Your task to perform on an android device: open app "Facebook Messenger" (install if not already installed) and go to login screen Image 0: 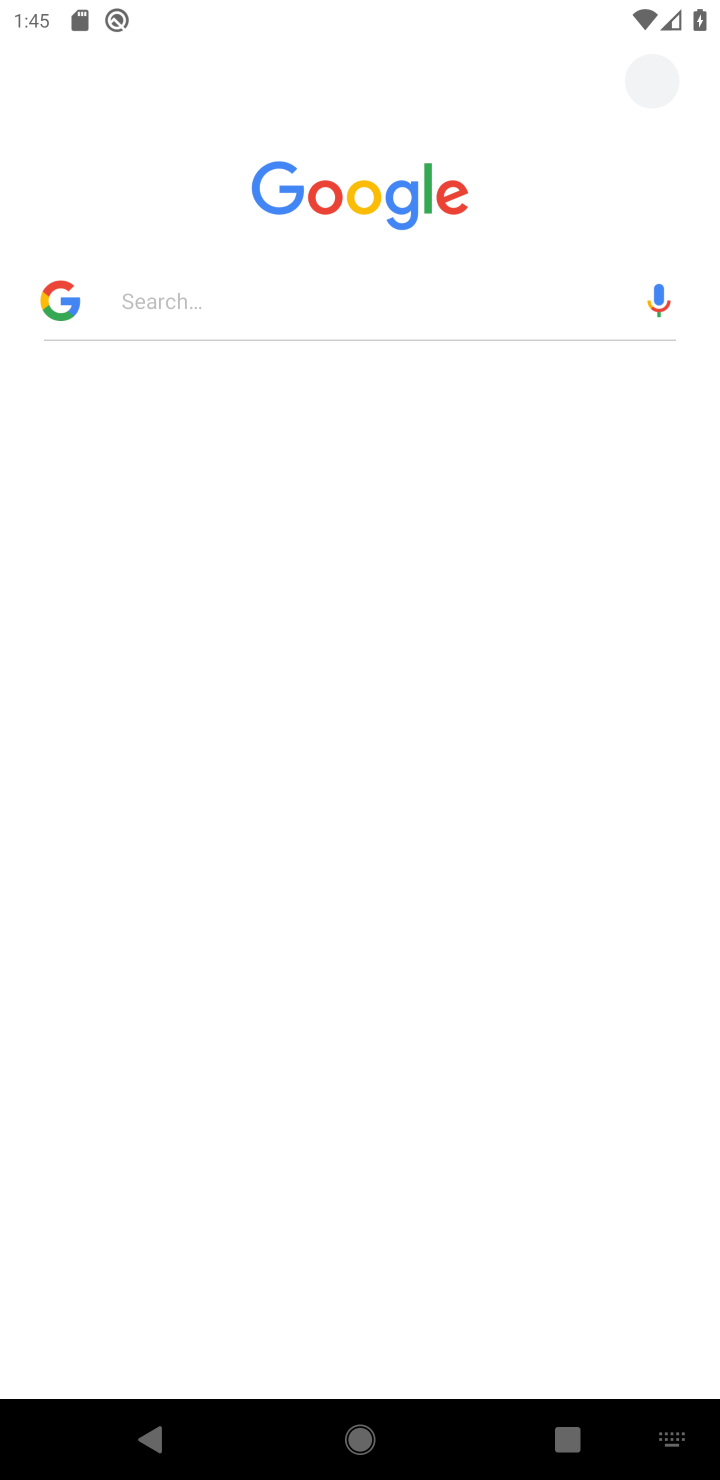
Step 0: press back button
Your task to perform on an android device: open app "Facebook Messenger" (install if not already installed) and go to login screen Image 1: 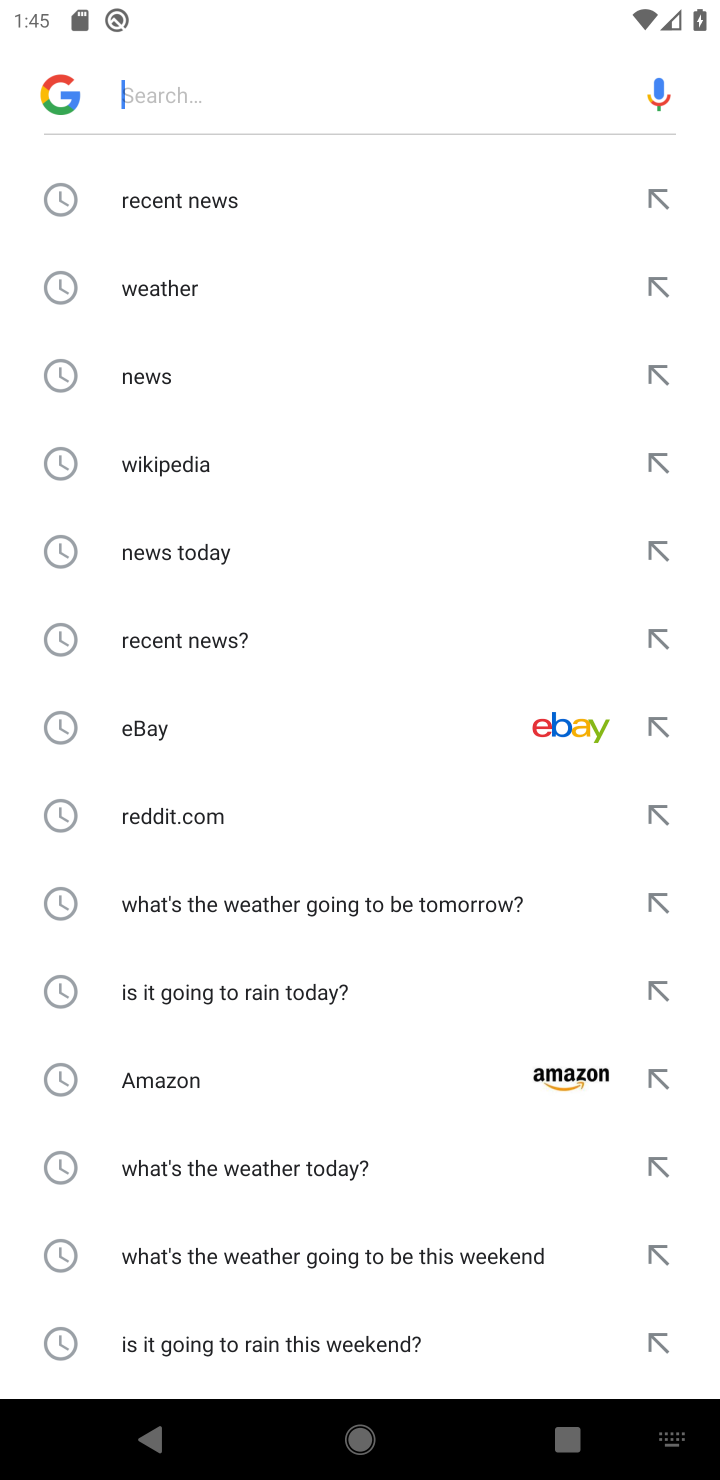
Step 1: press back button
Your task to perform on an android device: open app "Facebook Messenger" (install if not already installed) and go to login screen Image 2: 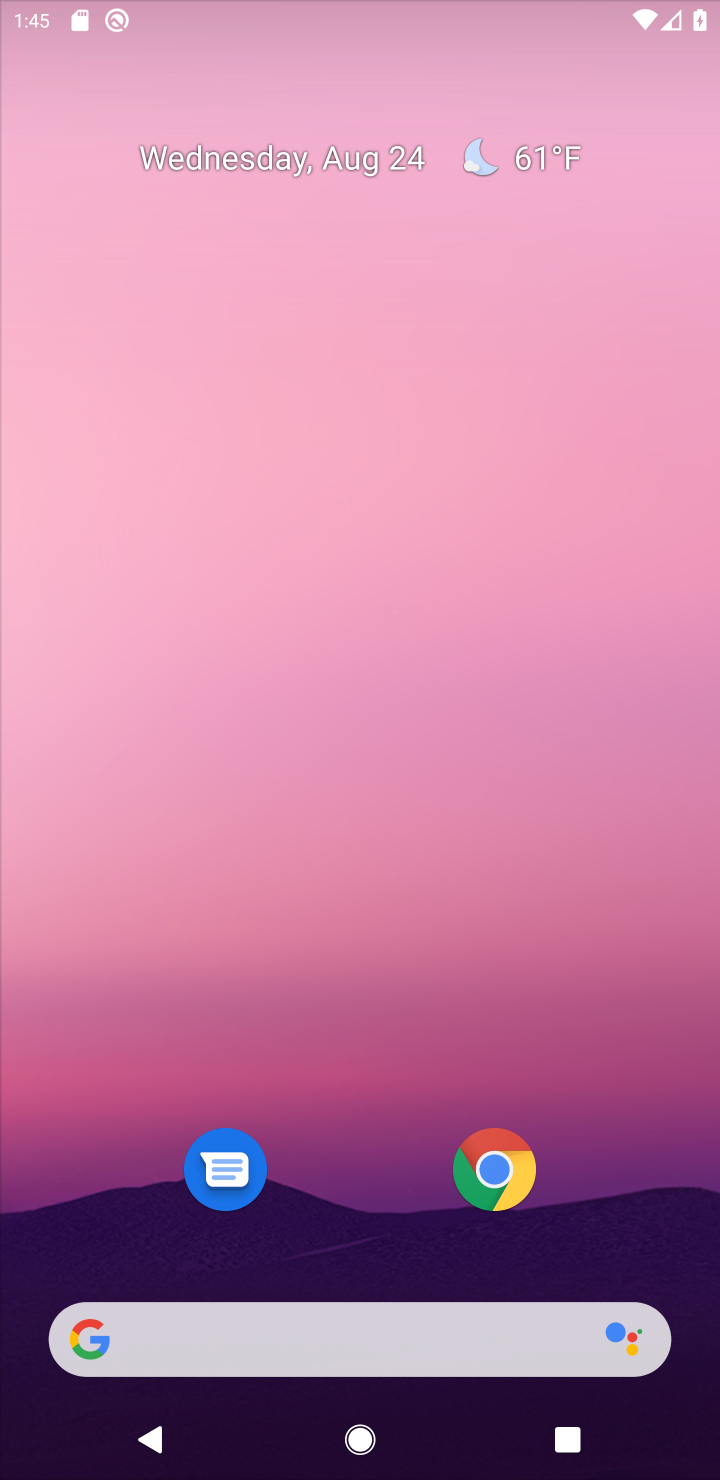
Step 2: press back button
Your task to perform on an android device: open app "Facebook Messenger" (install if not already installed) and go to login screen Image 3: 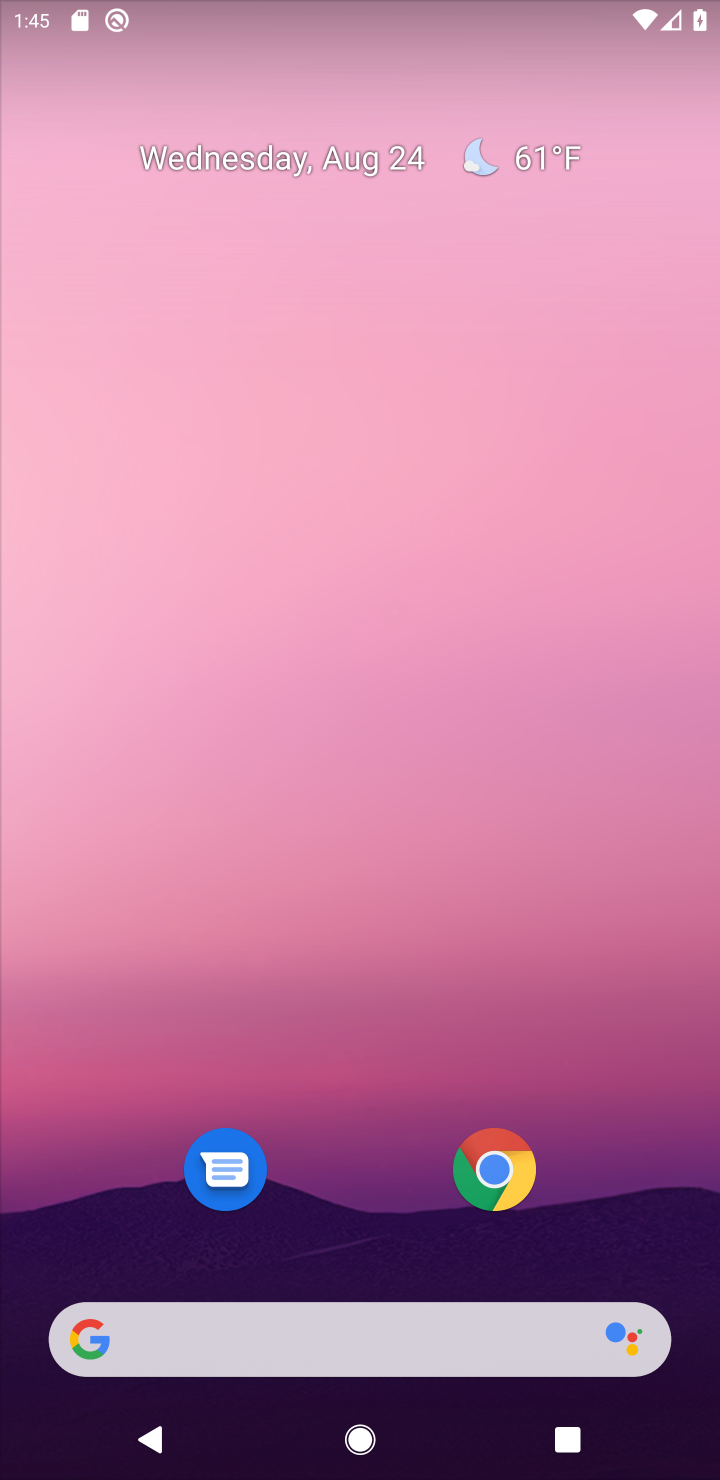
Step 3: press back button
Your task to perform on an android device: open app "Facebook Messenger" (install if not already installed) and go to login screen Image 4: 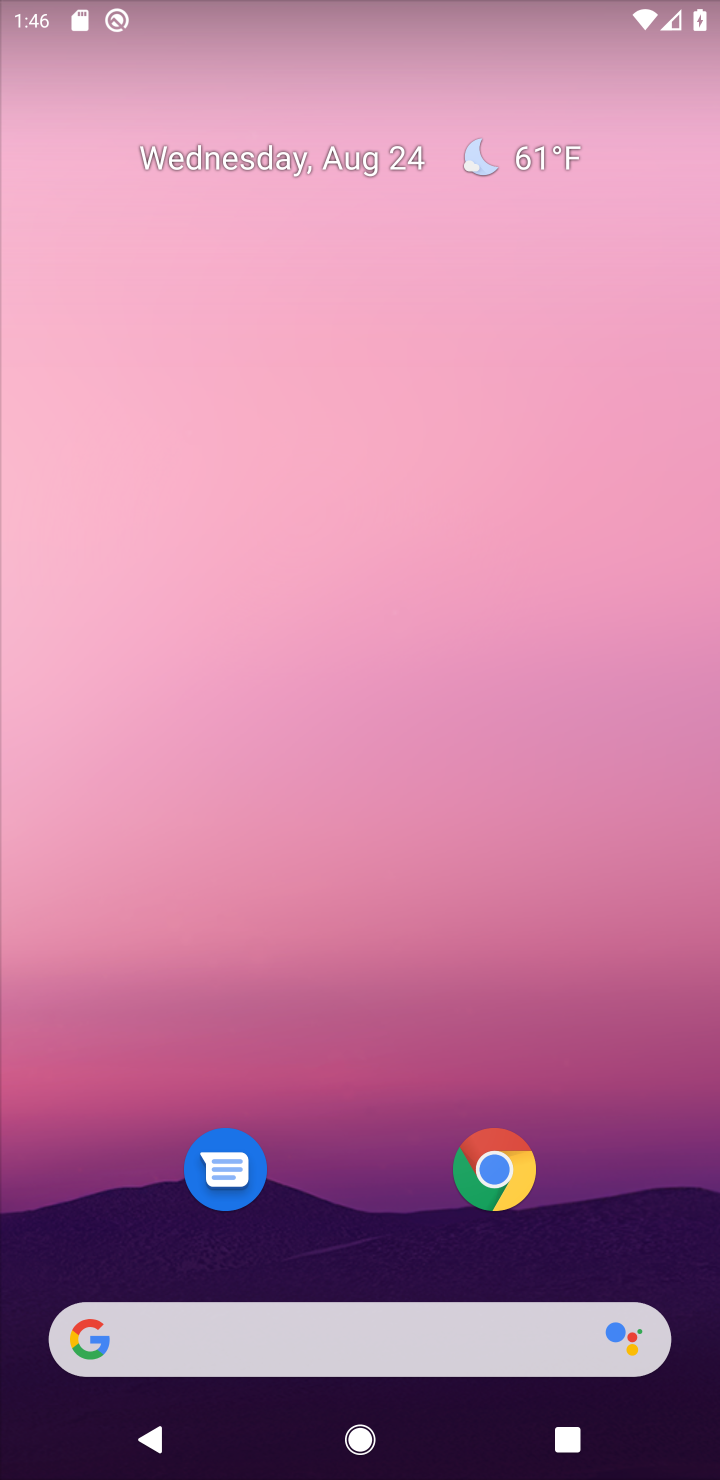
Step 4: drag from (338, 1262) to (210, 0)
Your task to perform on an android device: open app "Facebook Messenger" (install if not already installed) and go to login screen Image 5: 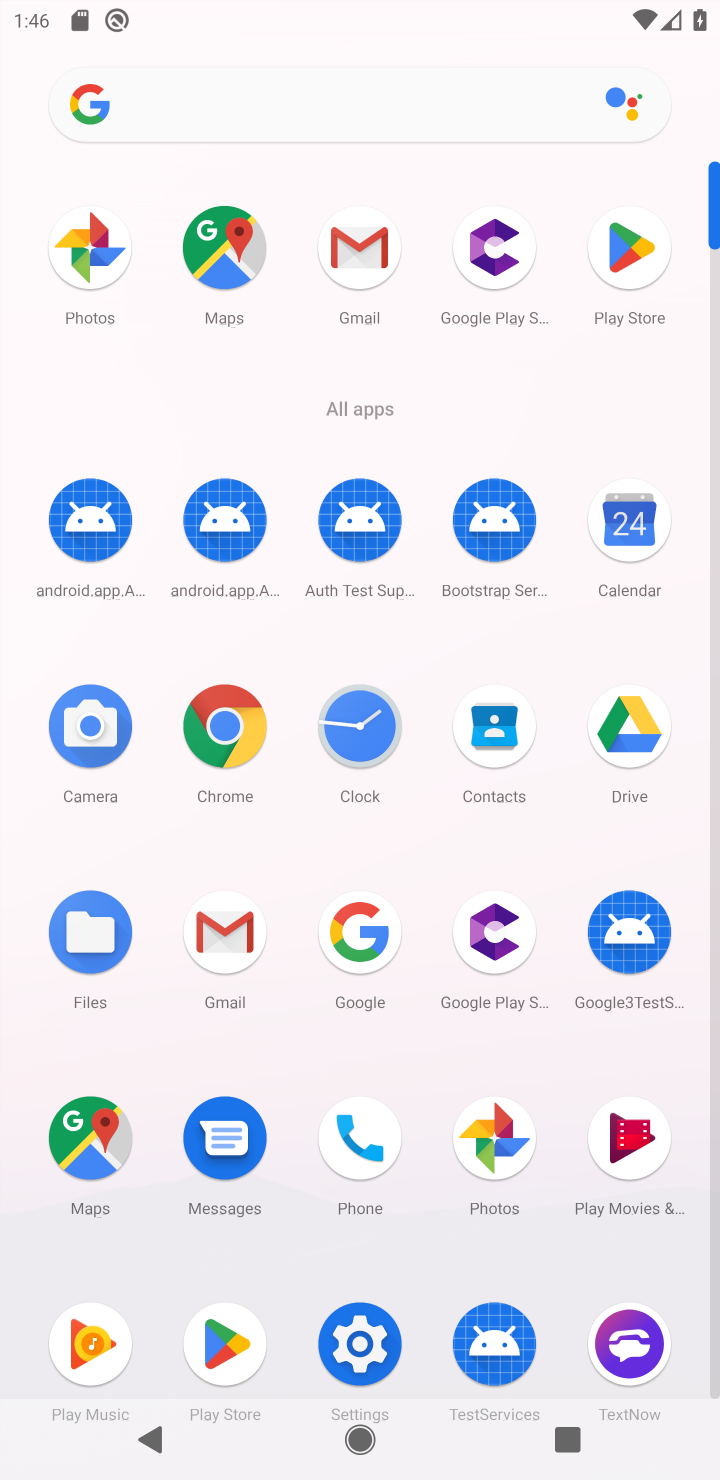
Step 5: click (641, 254)
Your task to perform on an android device: open app "Facebook Messenger" (install if not already installed) and go to login screen Image 6: 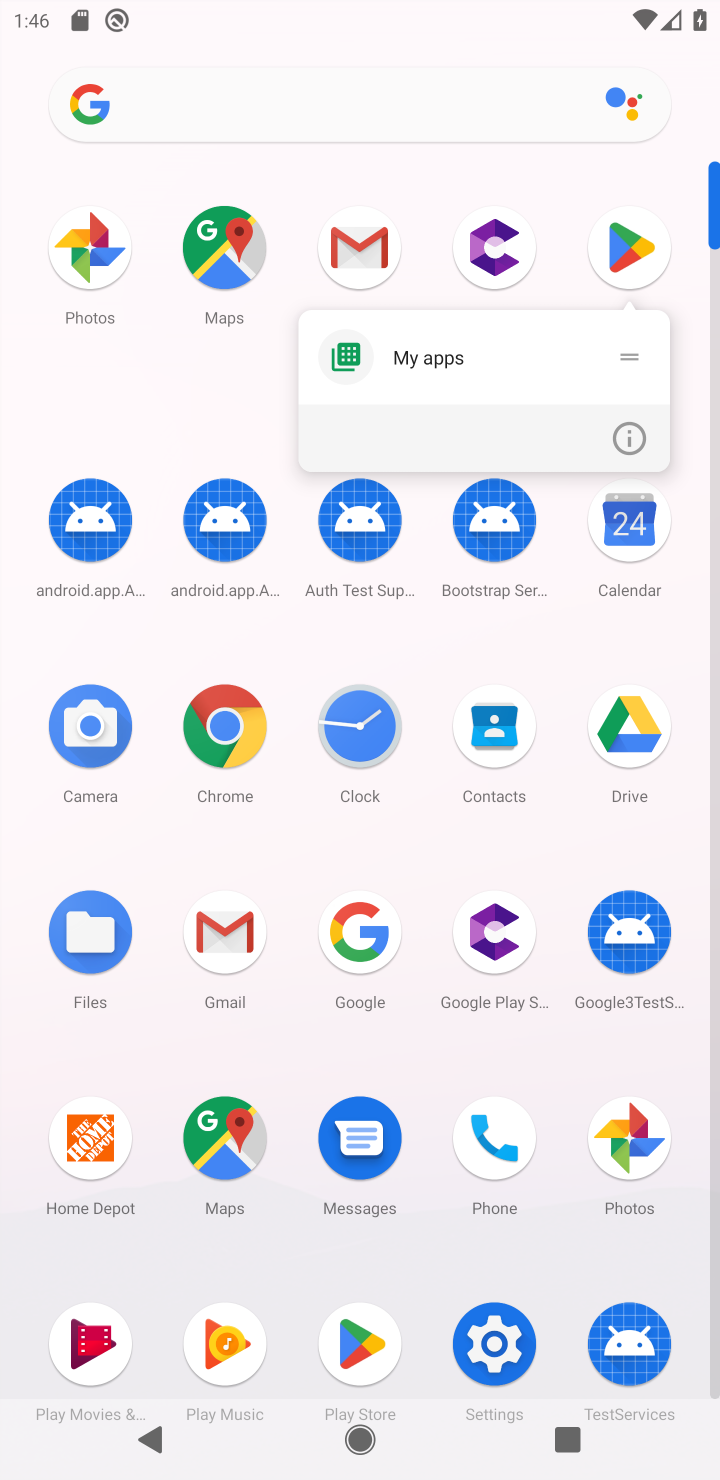
Step 6: click (622, 222)
Your task to perform on an android device: open app "Facebook Messenger" (install if not already installed) and go to login screen Image 7: 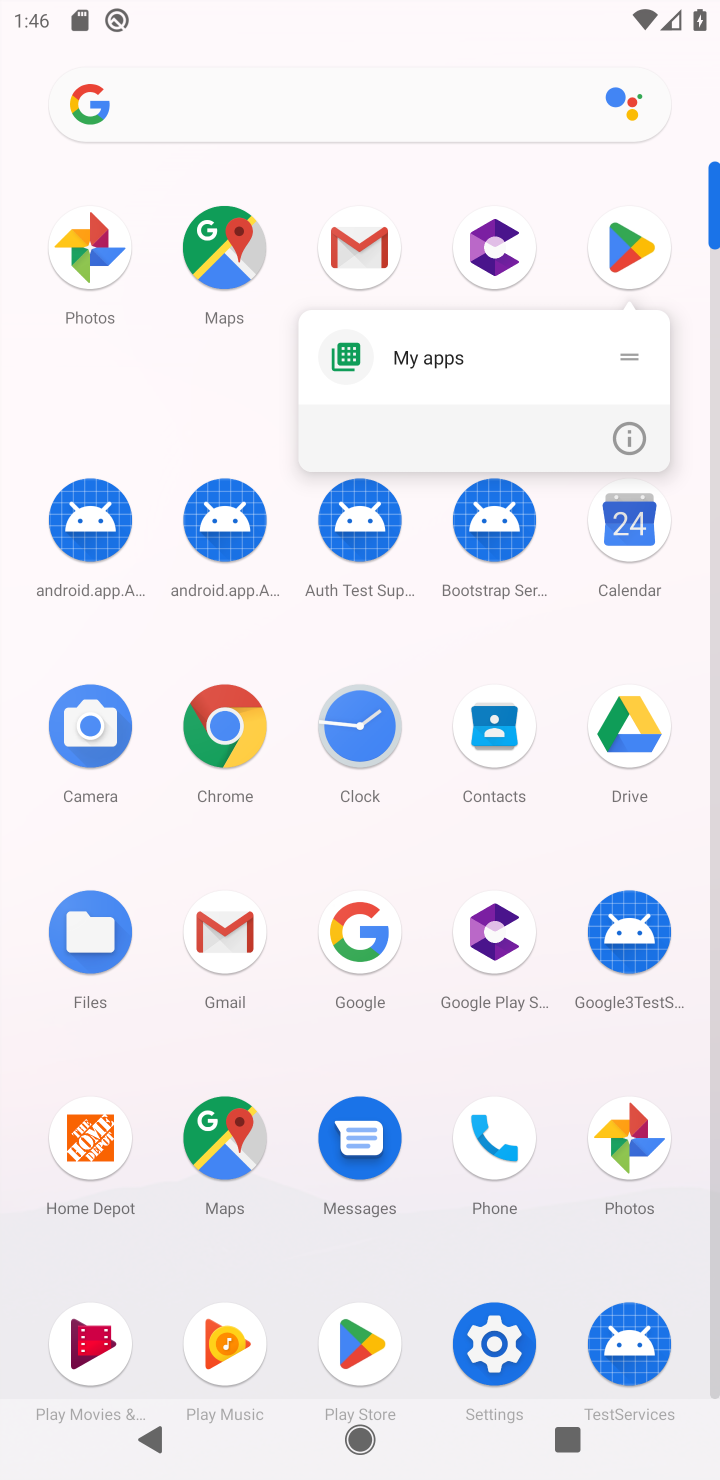
Step 7: click (622, 222)
Your task to perform on an android device: open app "Facebook Messenger" (install if not already installed) and go to login screen Image 8: 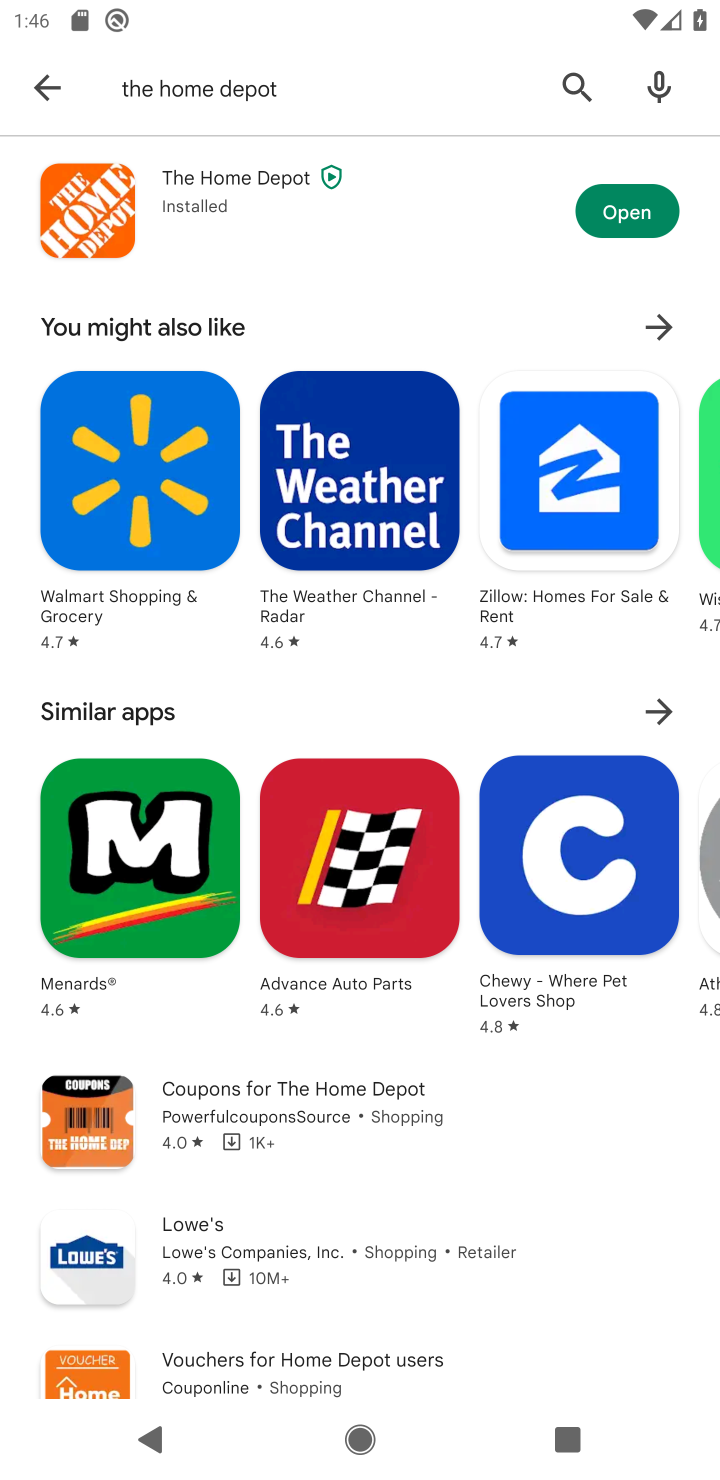
Step 8: click (44, 84)
Your task to perform on an android device: open app "Facebook Messenger" (install if not already installed) and go to login screen Image 9: 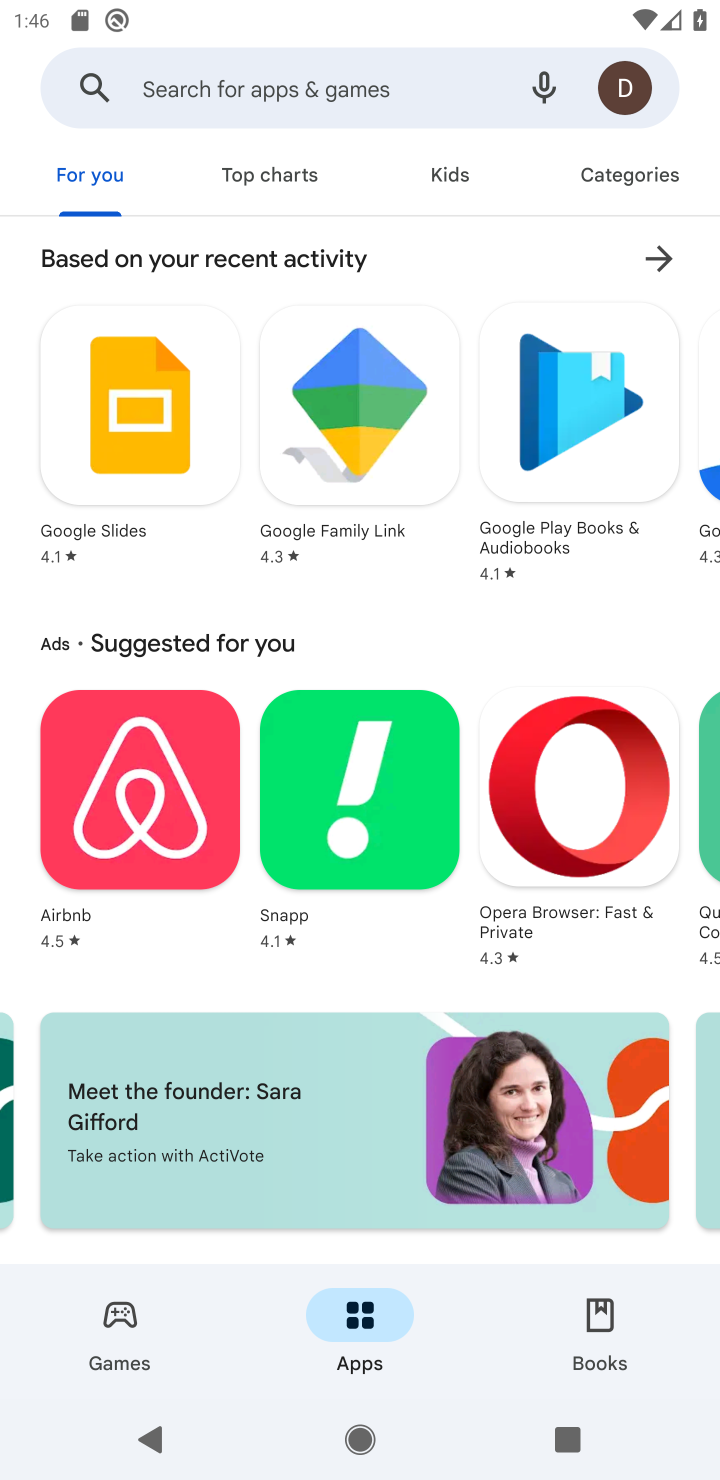
Step 9: click (331, 94)
Your task to perform on an android device: open app "Facebook Messenger" (install if not already installed) and go to login screen Image 10: 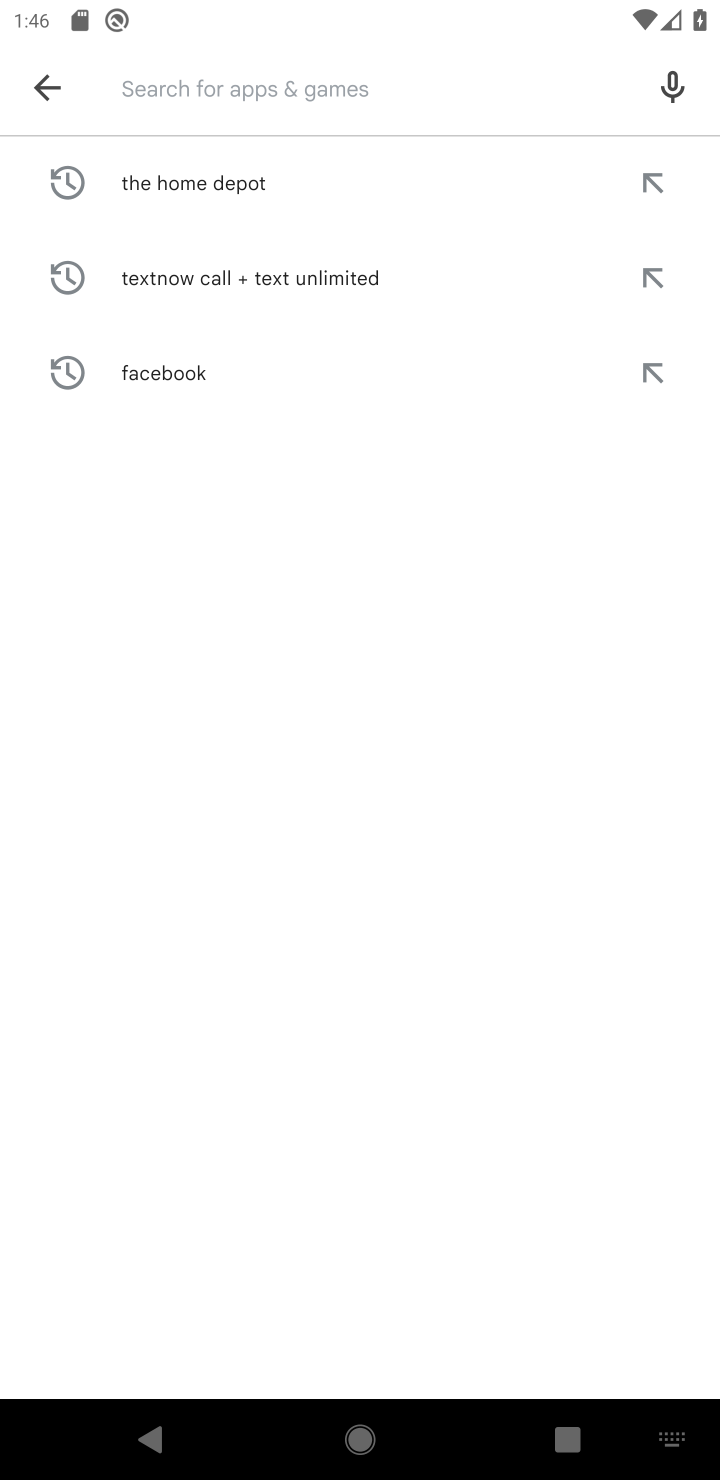
Step 10: type "Facebook Messenge"
Your task to perform on an android device: open app "Facebook Messenger" (install if not already installed) and go to login screen Image 11: 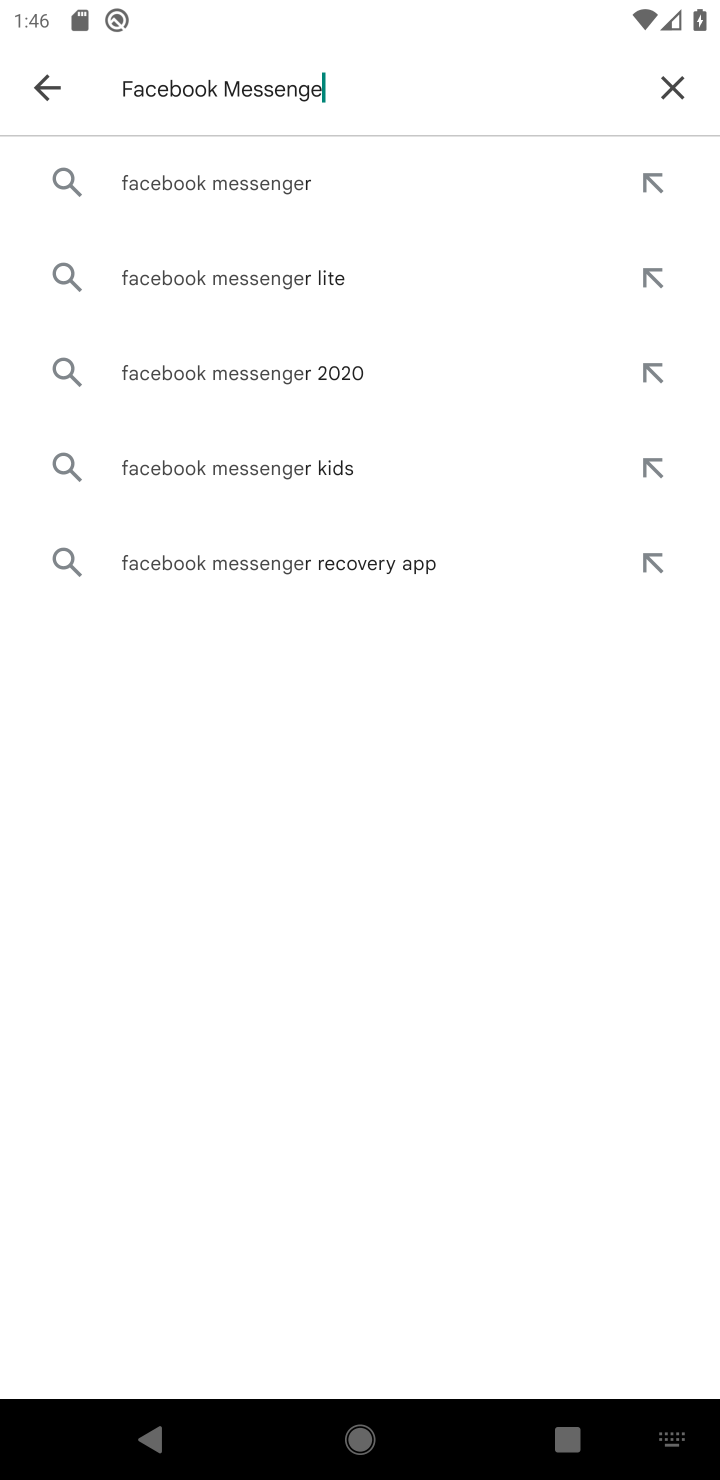
Step 11: click (214, 170)
Your task to perform on an android device: open app "Facebook Messenger" (install if not already installed) and go to login screen Image 12: 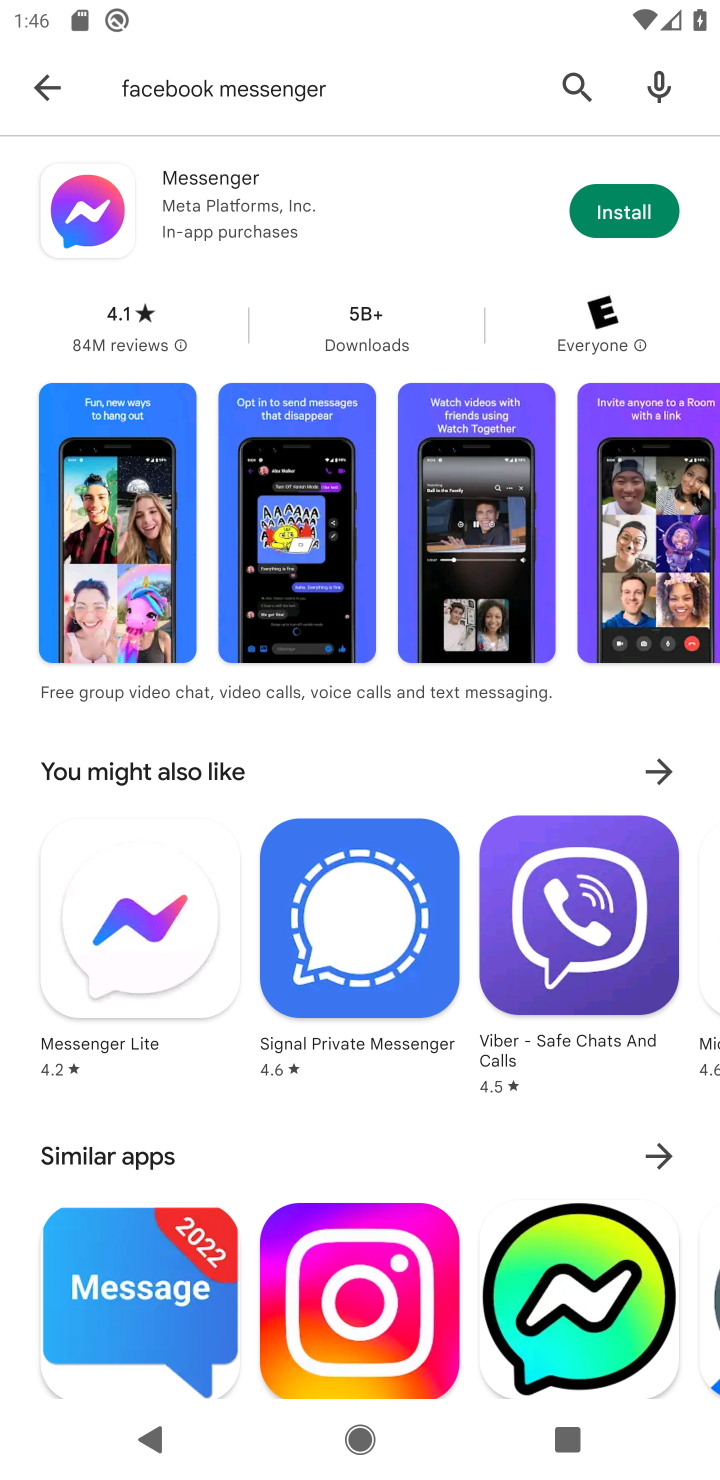
Step 12: click (580, 189)
Your task to perform on an android device: open app "Facebook Messenger" (install if not already installed) and go to login screen Image 13: 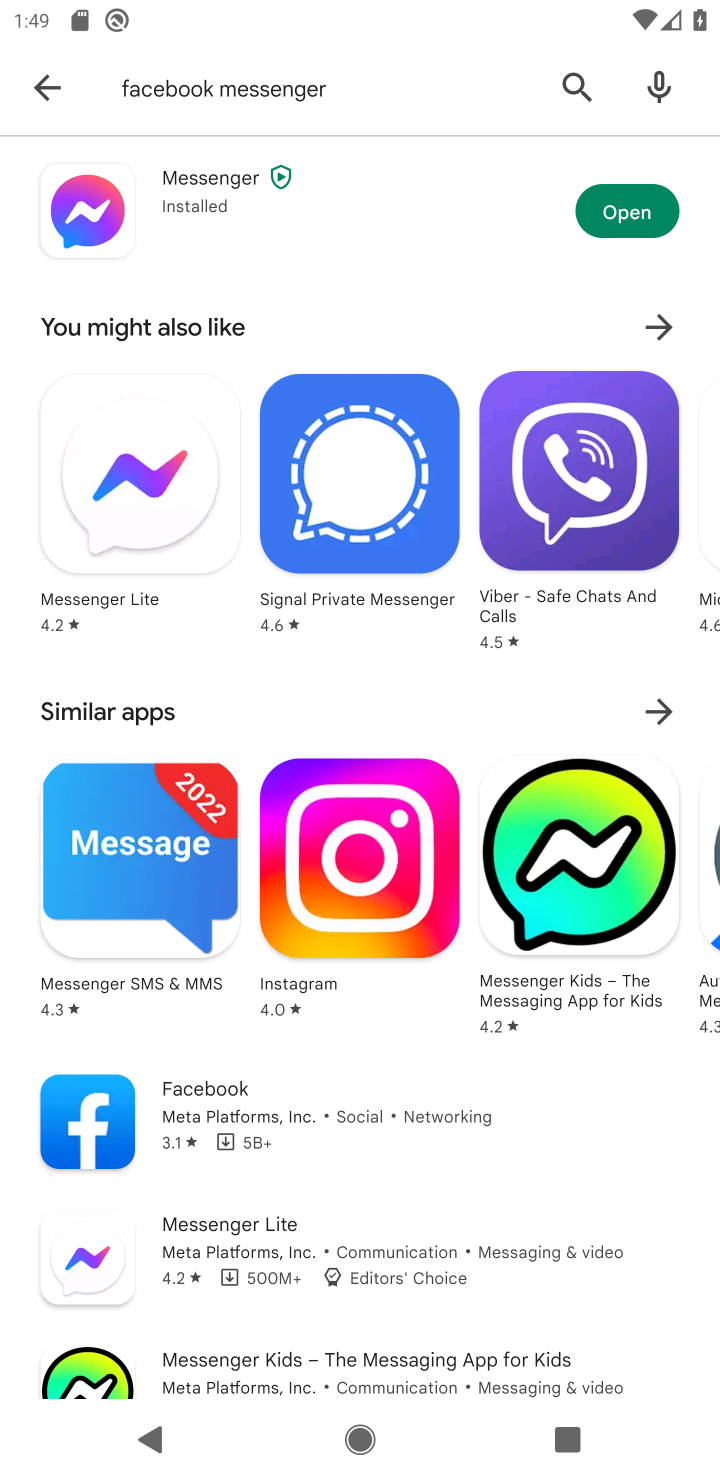
Step 13: click (643, 220)
Your task to perform on an android device: open app "Facebook Messenger" (install if not already installed) and go to login screen Image 14: 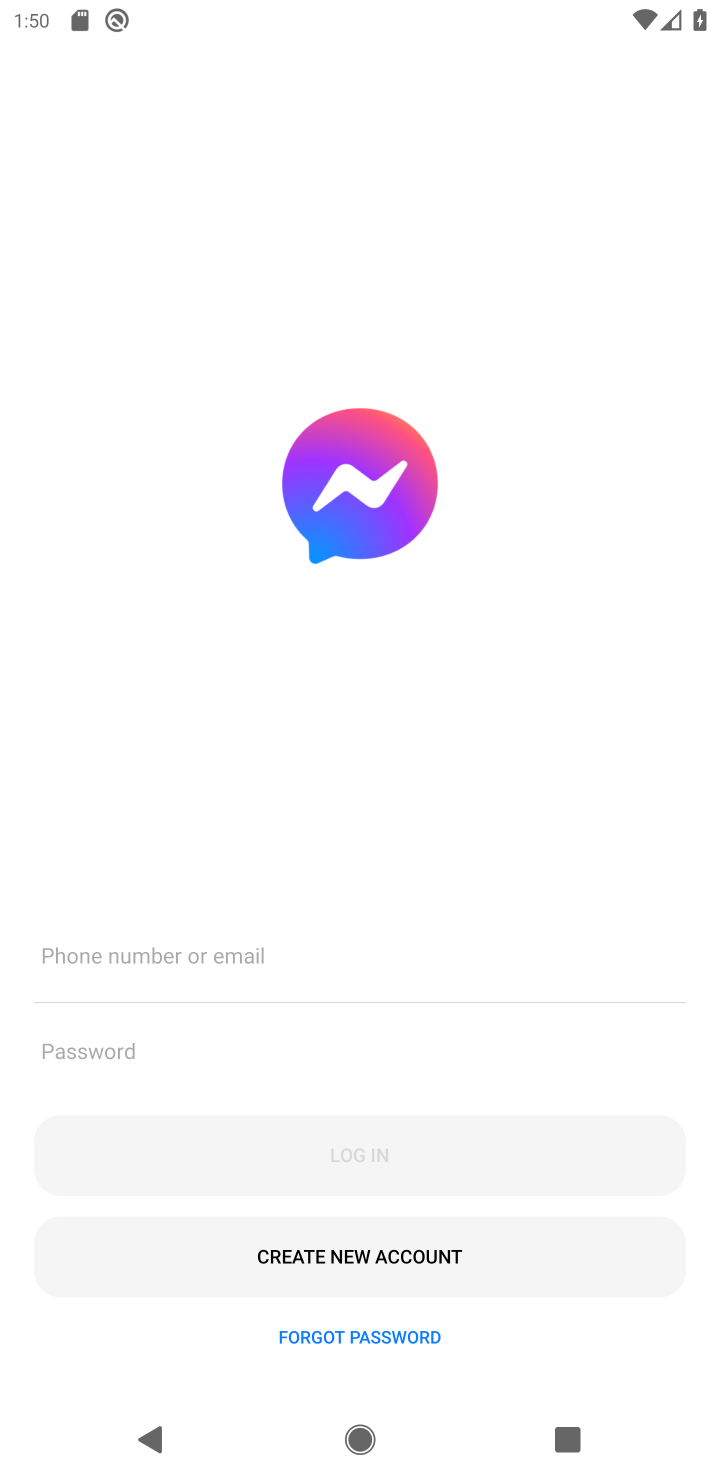
Step 14: task complete